Your task to perform on an android device: check android version Image 0: 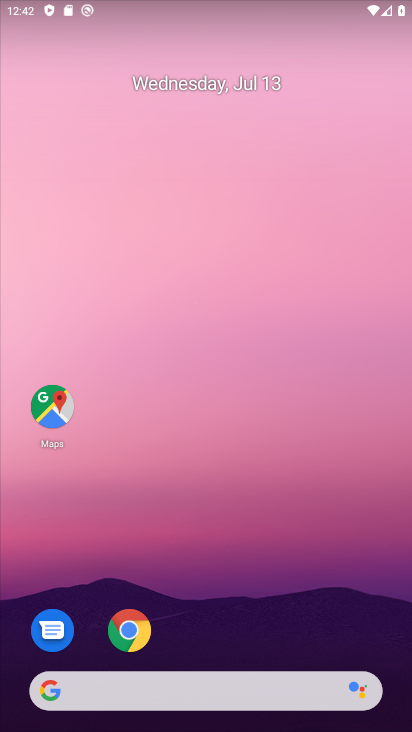
Step 0: click (185, 126)
Your task to perform on an android device: check android version Image 1: 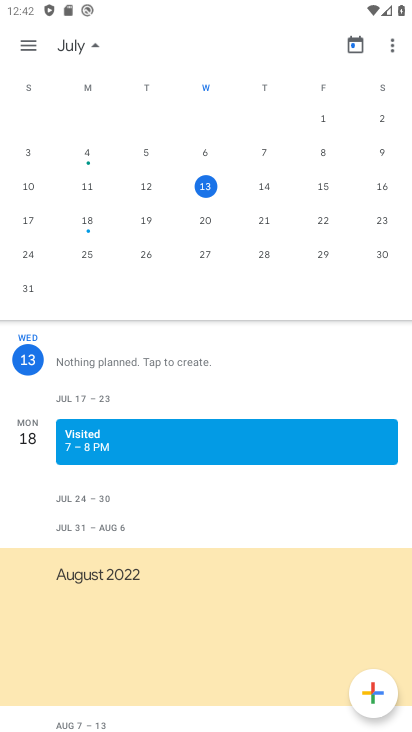
Step 1: press home button
Your task to perform on an android device: check android version Image 2: 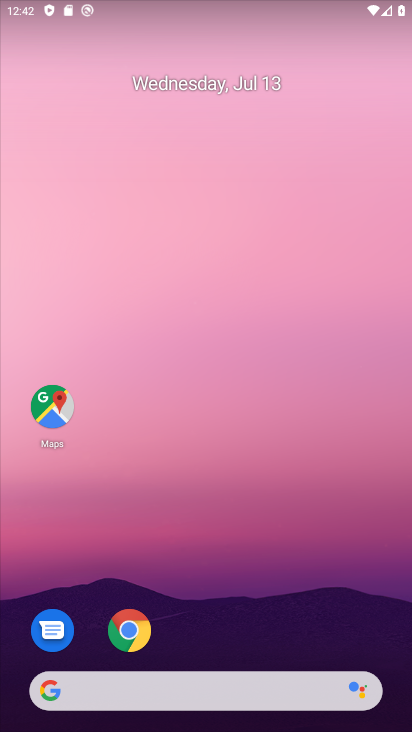
Step 2: drag from (12, 691) to (259, 46)
Your task to perform on an android device: check android version Image 3: 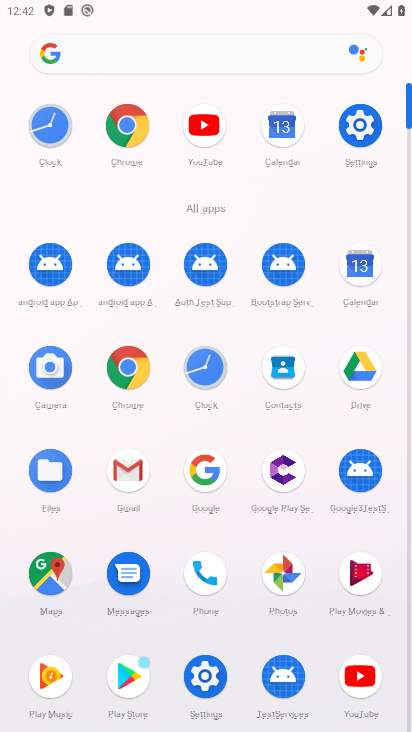
Step 3: click (207, 669)
Your task to perform on an android device: check android version Image 4: 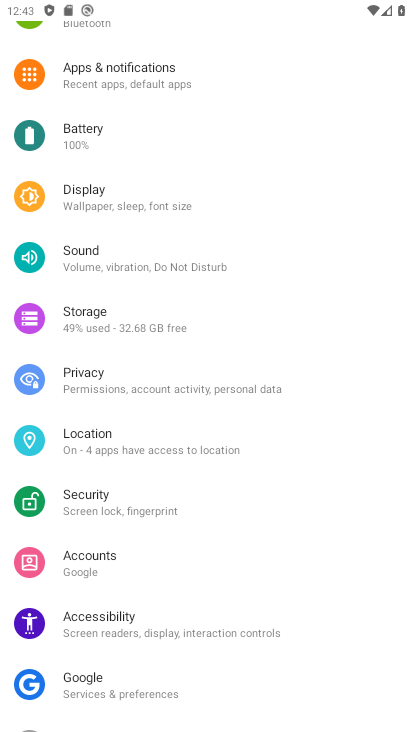
Step 4: drag from (289, 686) to (313, 391)
Your task to perform on an android device: check android version Image 5: 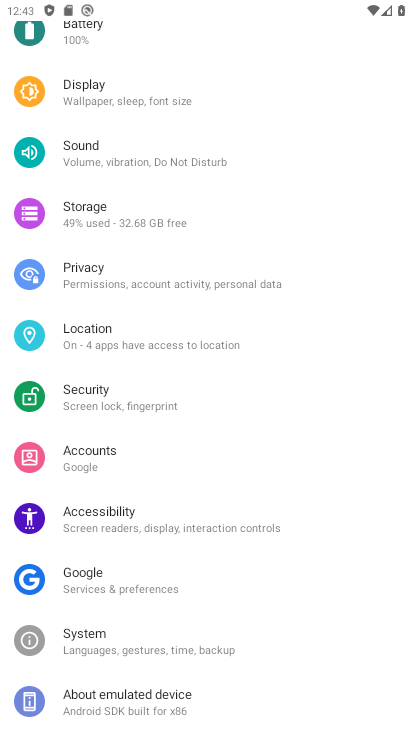
Step 5: click (142, 697)
Your task to perform on an android device: check android version Image 6: 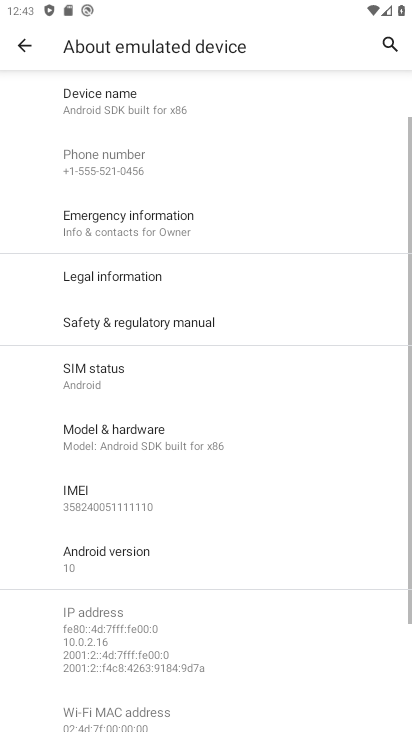
Step 6: click (110, 549)
Your task to perform on an android device: check android version Image 7: 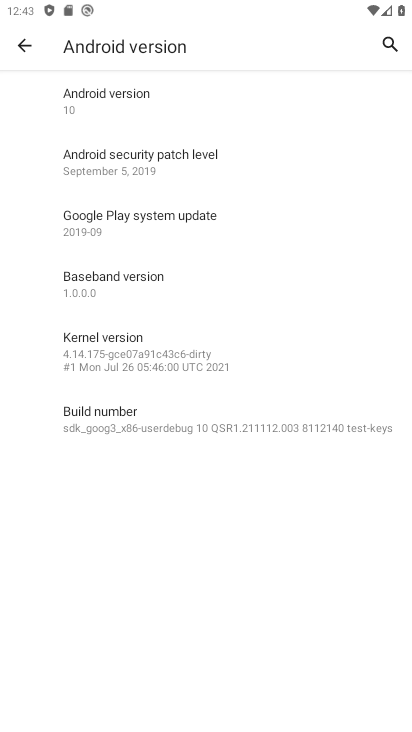
Step 7: task complete